Your task to perform on an android device: Go to display settings Image 0: 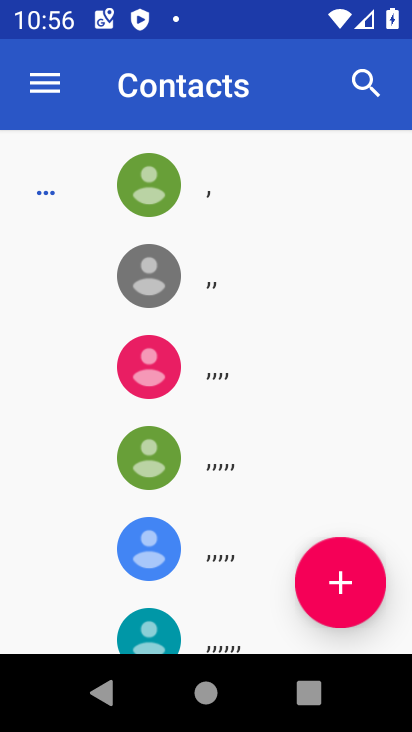
Step 0: press home button
Your task to perform on an android device: Go to display settings Image 1: 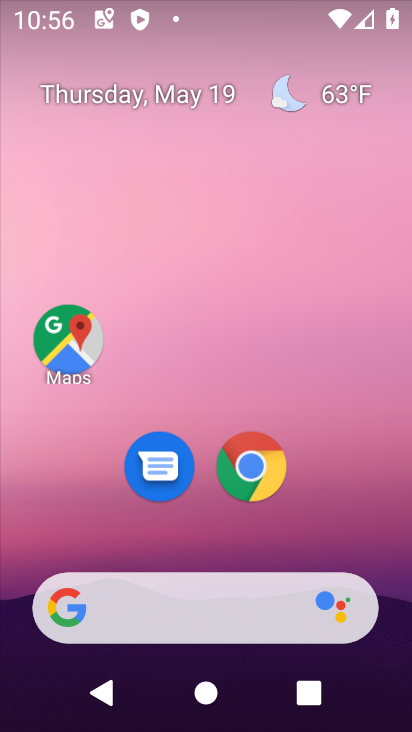
Step 1: drag from (392, 621) to (328, 59)
Your task to perform on an android device: Go to display settings Image 2: 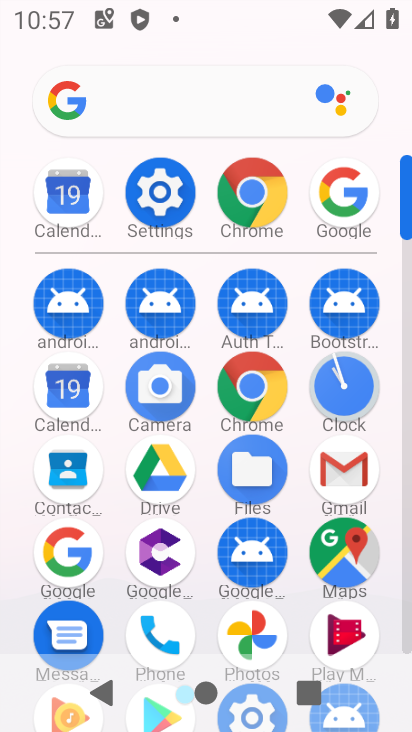
Step 2: click (152, 217)
Your task to perform on an android device: Go to display settings Image 3: 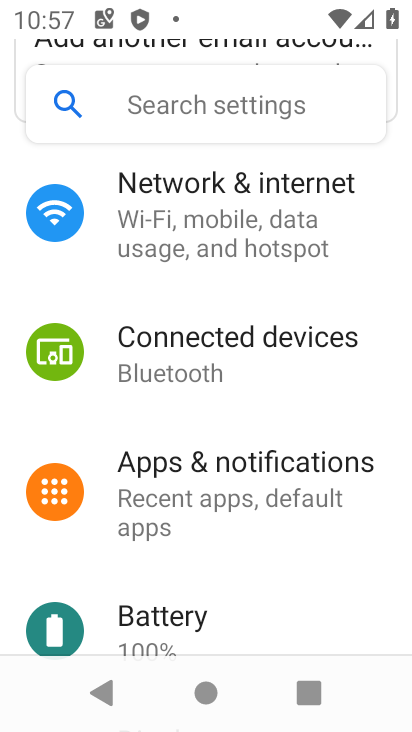
Step 3: drag from (215, 595) to (293, 200)
Your task to perform on an android device: Go to display settings Image 4: 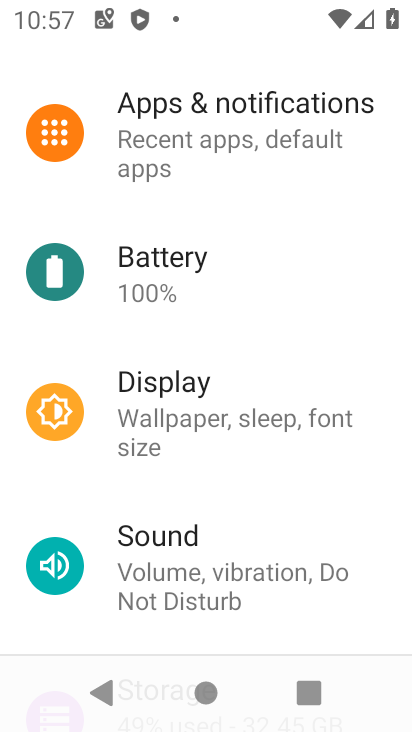
Step 4: click (172, 395)
Your task to perform on an android device: Go to display settings Image 5: 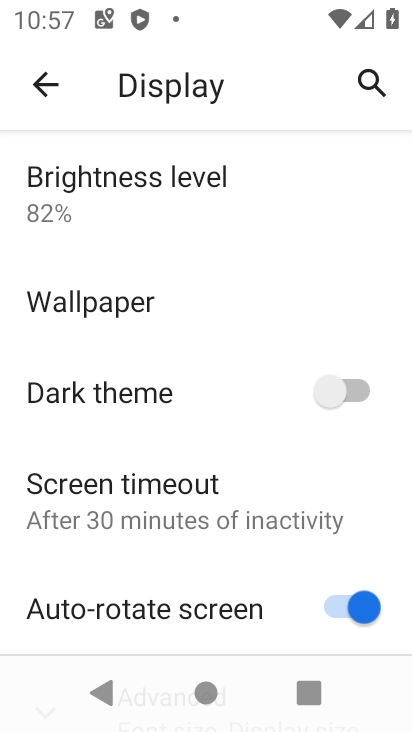
Step 5: task complete